Your task to perform on an android device: open app "Google Pay: Save, Pay, Manage" (install if not already installed) Image 0: 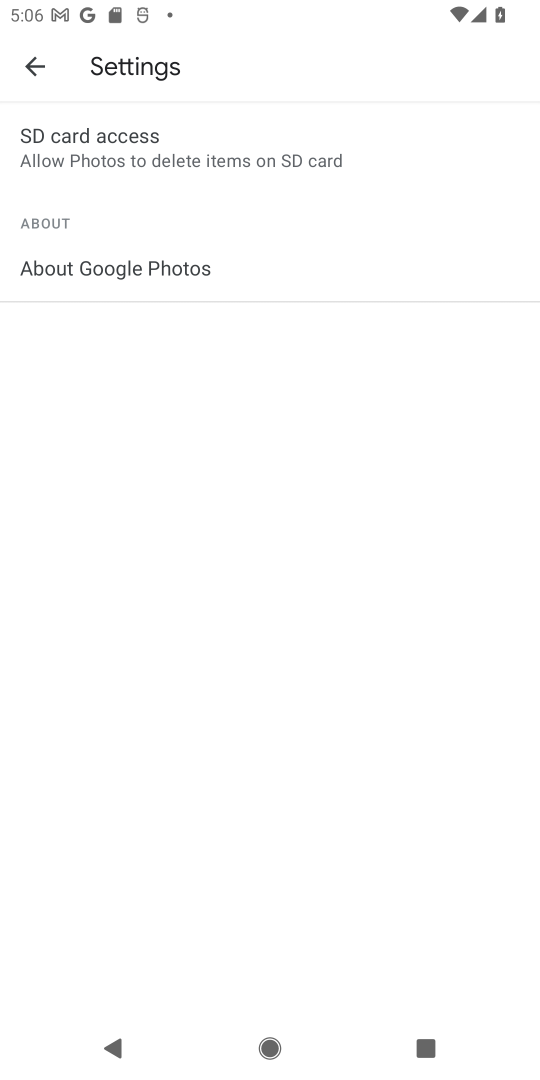
Step 0: press home button
Your task to perform on an android device: open app "Google Pay: Save, Pay, Manage" (install if not already installed) Image 1: 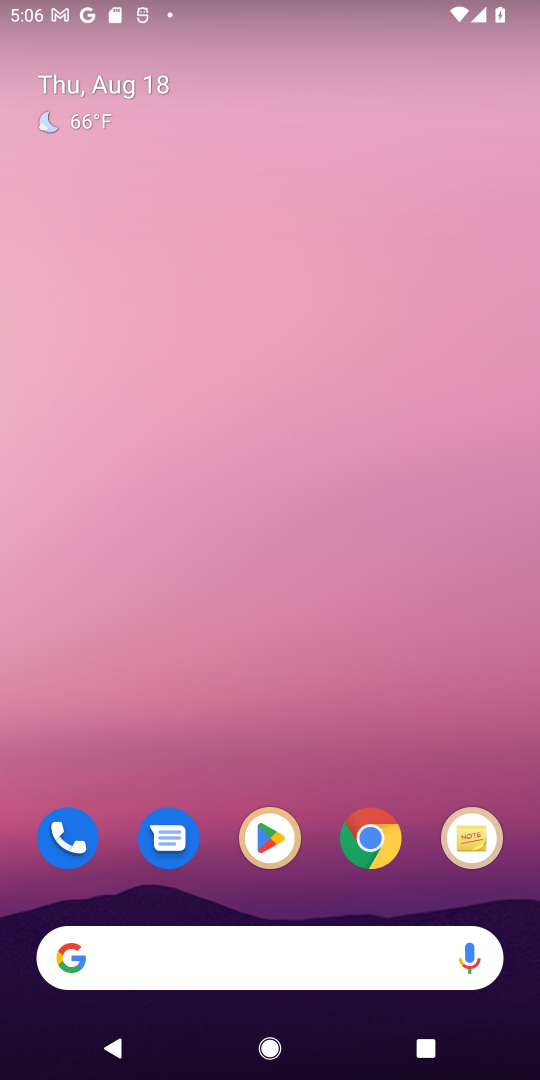
Step 1: drag from (156, 953) to (307, 146)
Your task to perform on an android device: open app "Google Pay: Save, Pay, Manage" (install if not already installed) Image 2: 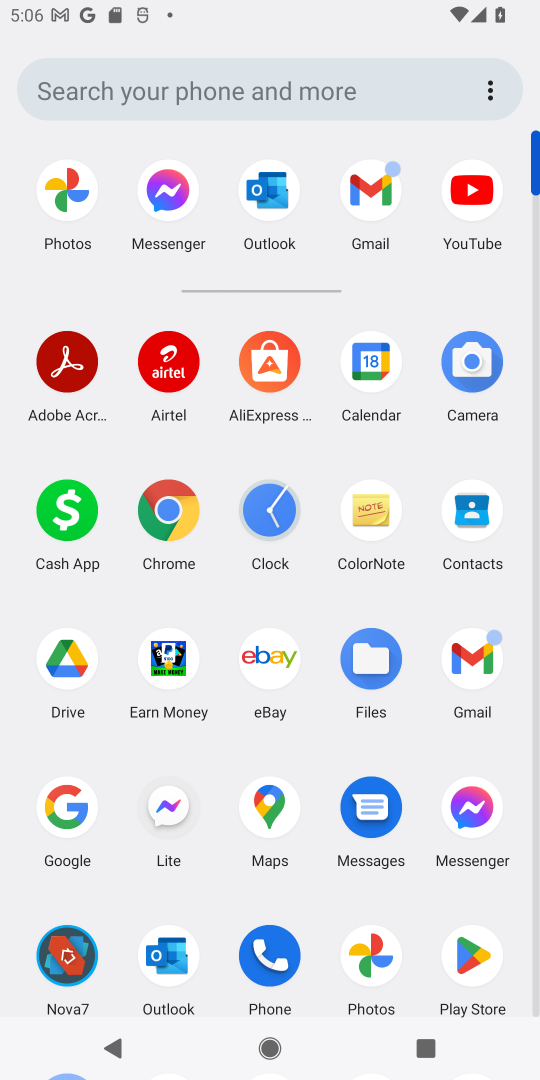
Step 2: click (474, 954)
Your task to perform on an android device: open app "Google Pay: Save, Pay, Manage" (install if not already installed) Image 3: 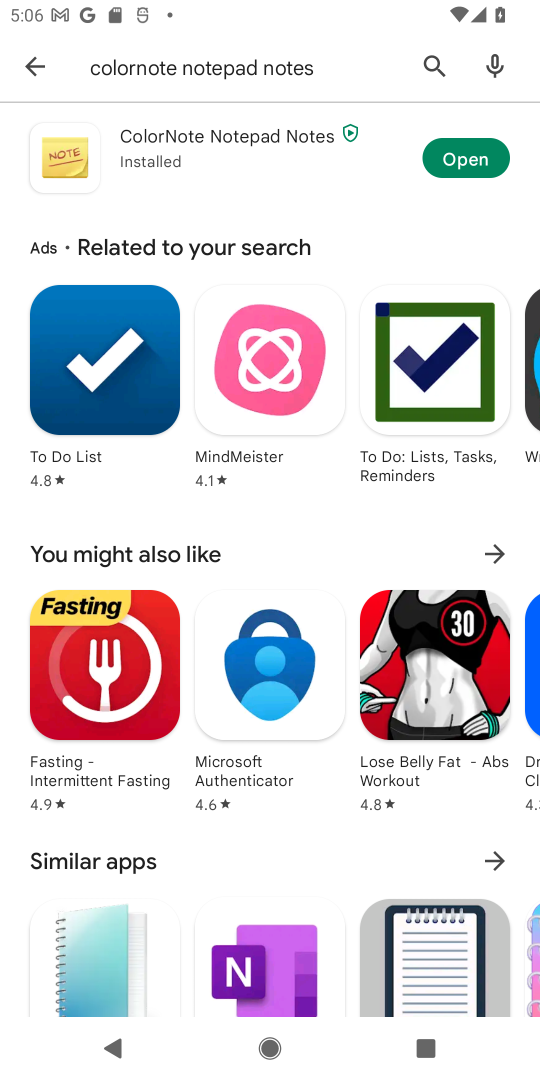
Step 3: press back button
Your task to perform on an android device: open app "Google Pay: Save, Pay, Manage" (install if not already installed) Image 4: 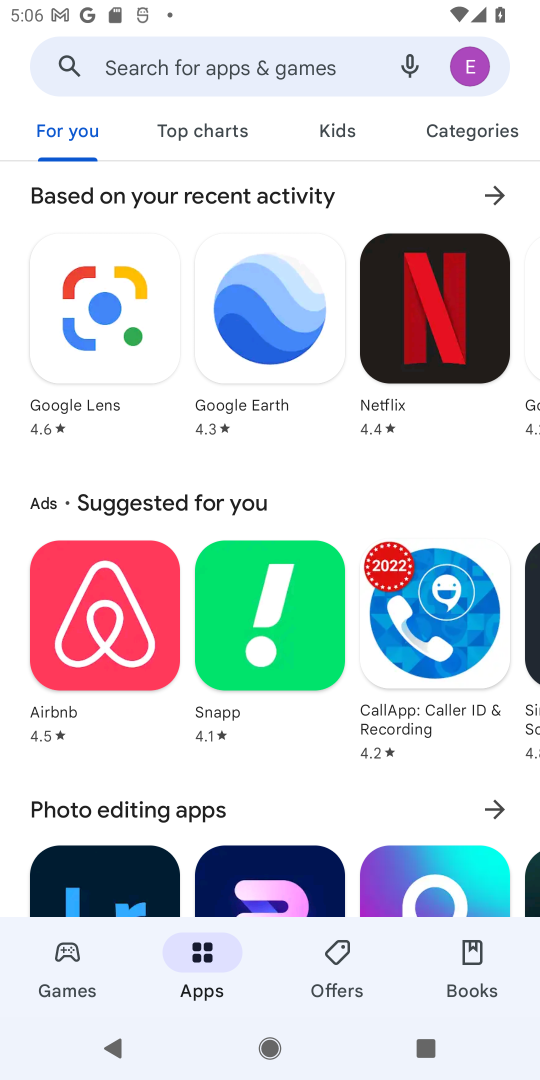
Step 4: click (256, 69)
Your task to perform on an android device: open app "Google Pay: Save, Pay, Manage" (install if not already installed) Image 5: 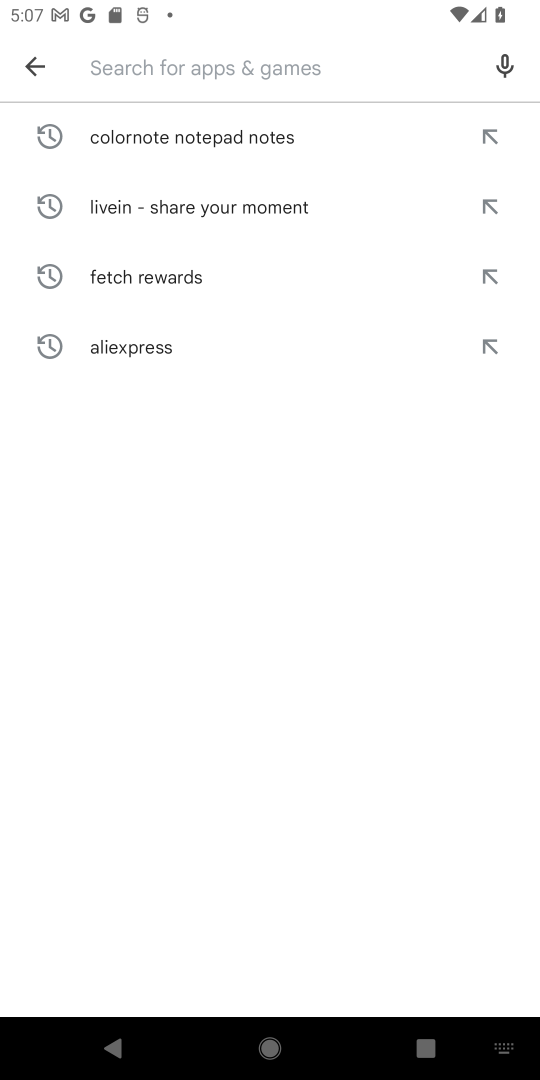
Step 5: type "Google Pay: Save, Pay, Manage"
Your task to perform on an android device: open app "Google Pay: Save, Pay, Manage" (install if not already installed) Image 6: 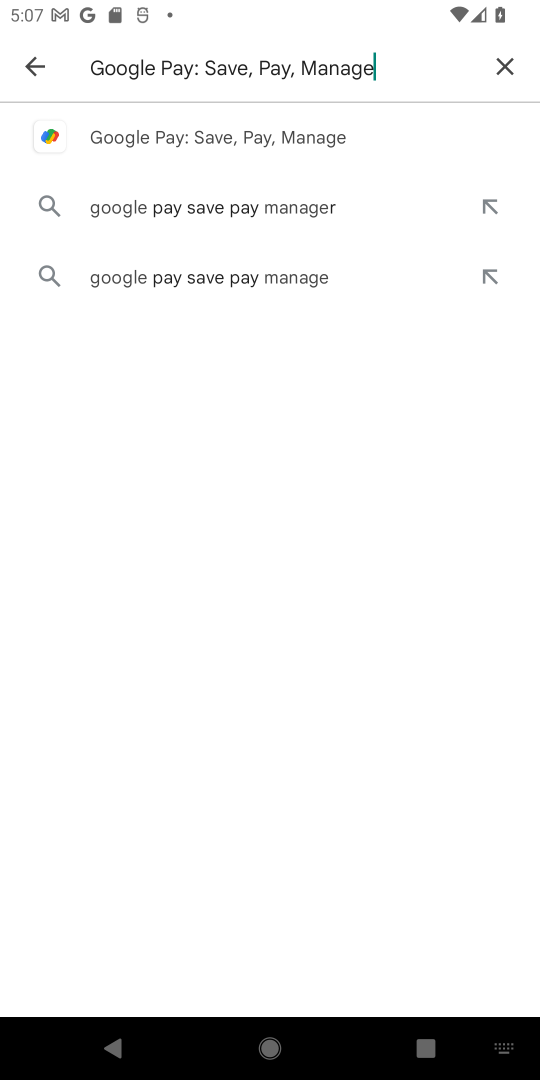
Step 6: click (290, 129)
Your task to perform on an android device: open app "Google Pay: Save, Pay, Manage" (install if not already installed) Image 7: 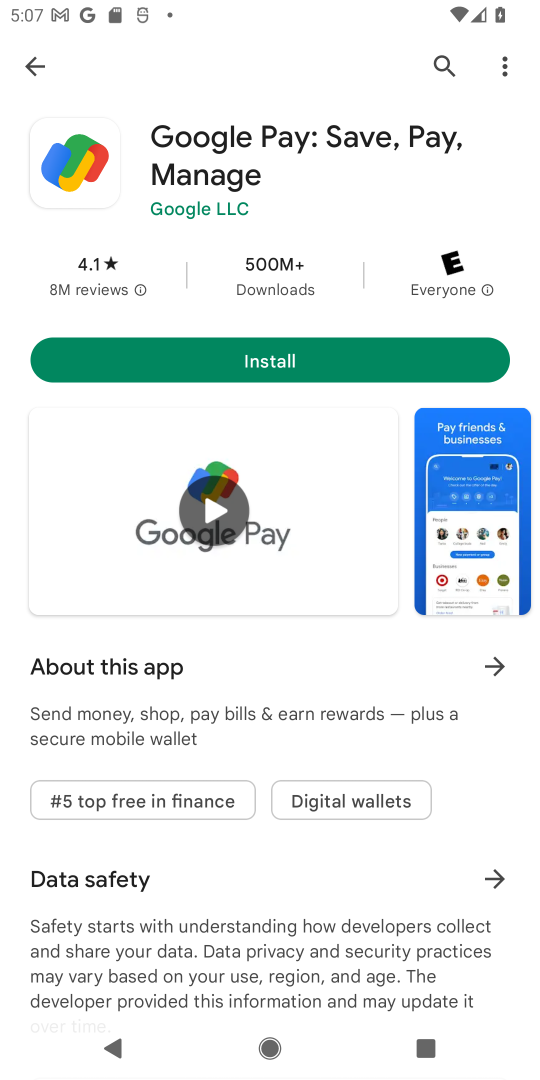
Step 7: click (273, 359)
Your task to perform on an android device: open app "Google Pay: Save, Pay, Manage" (install if not already installed) Image 8: 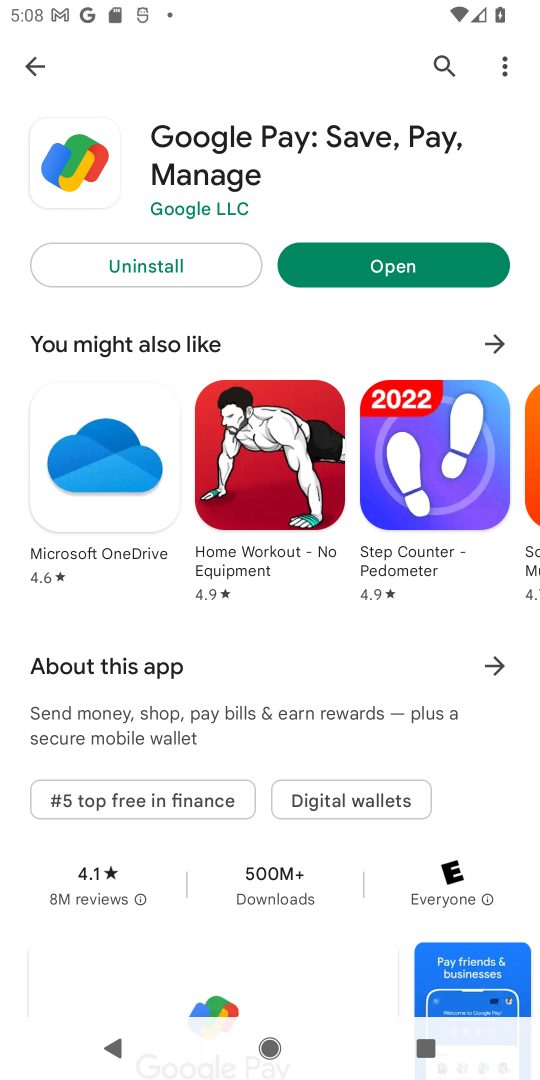
Step 8: click (386, 277)
Your task to perform on an android device: open app "Google Pay: Save, Pay, Manage" (install if not already installed) Image 9: 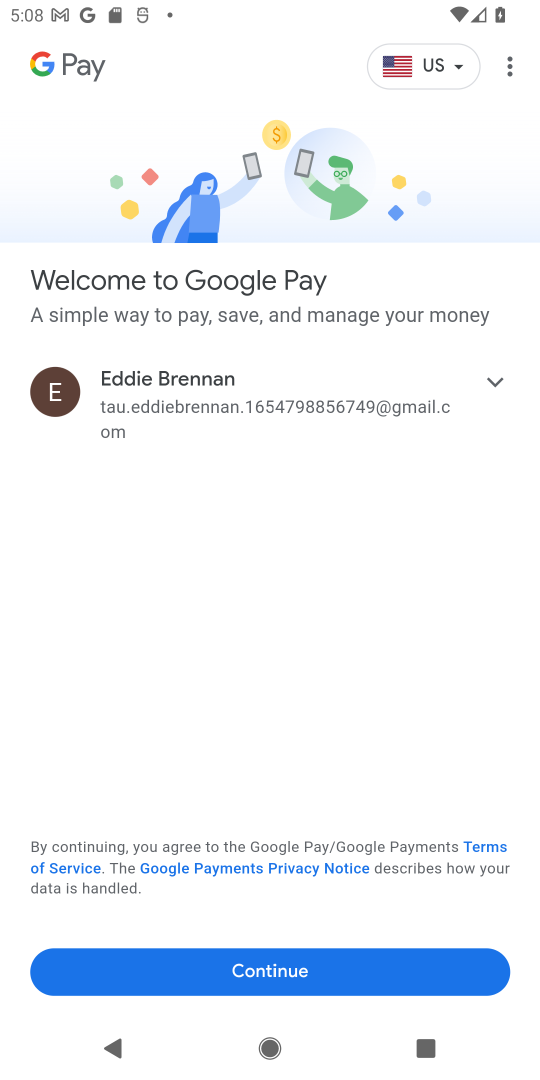
Step 9: task complete